Your task to perform on an android device: visit the assistant section in the google photos Image 0: 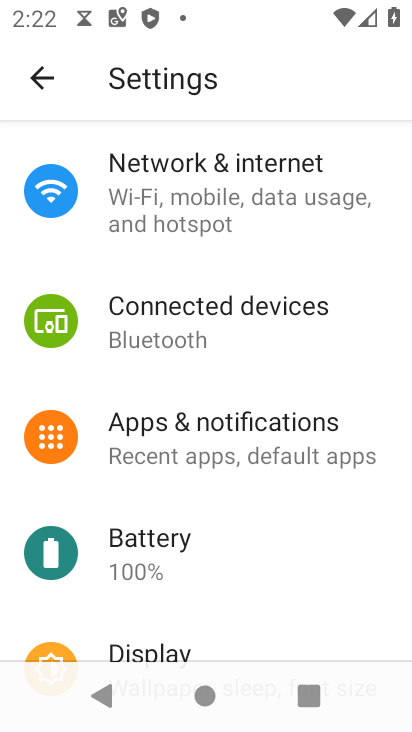
Step 0: press home button
Your task to perform on an android device: visit the assistant section in the google photos Image 1: 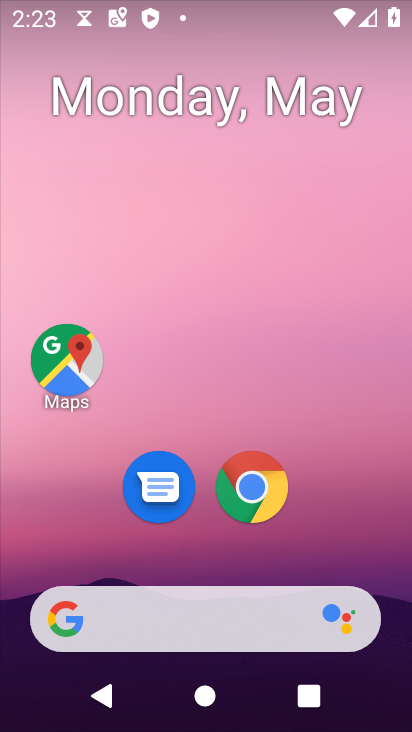
Step 1: drag from (383, 552) to (338, 104)
Your task to perform on an android device: visit the assistant section in the google photos Image 2: 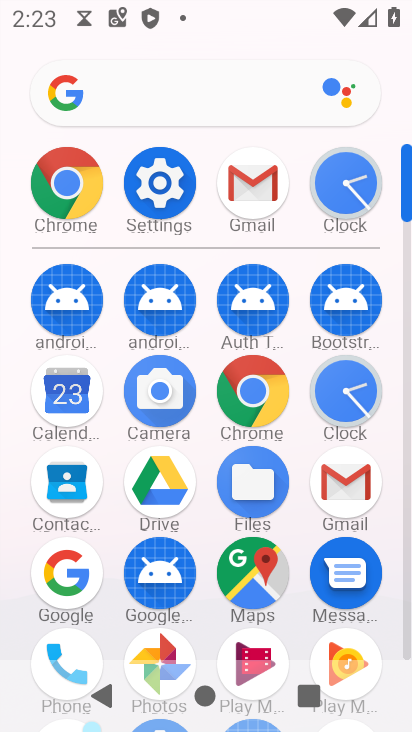
Step 2: click (173, 641)
Your task to perform on an android device: visit the assistant section in the google photos Image 3: 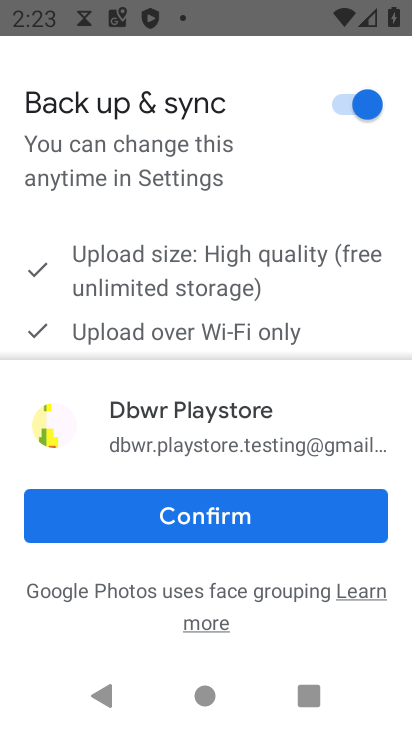
Step 3: click (297, 525)
Your task to perform on an android device: visit the assistant section in the google photos Image 4: 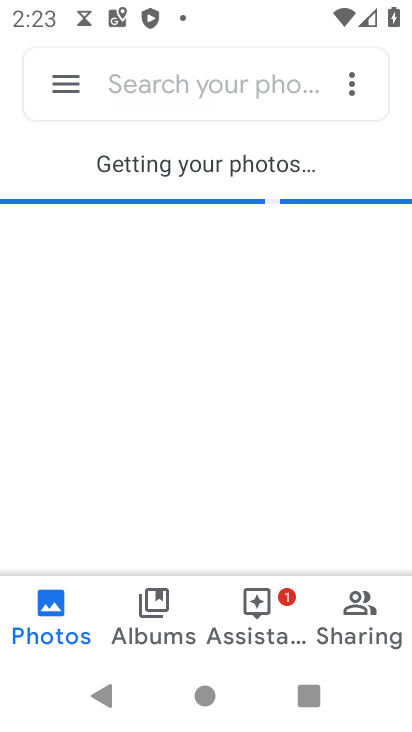
Step 4: click (265, 608)
Your task to perform on an android device: visit the assistant section in the google photos Image 5: 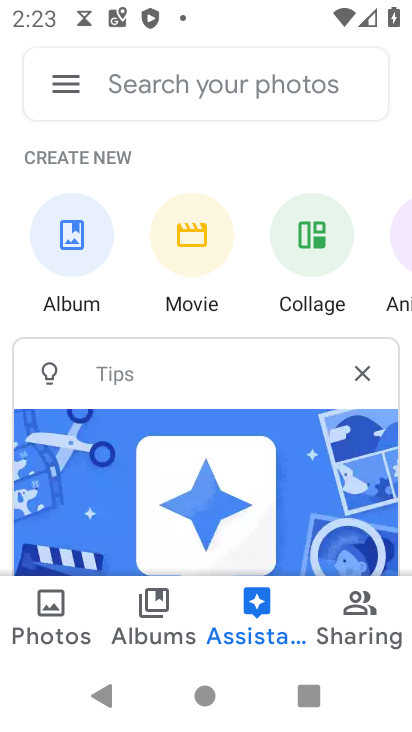
Step 5: task complete